Your task to perform on an android device: What's on the menu at Papa Murphy's? Image 0: 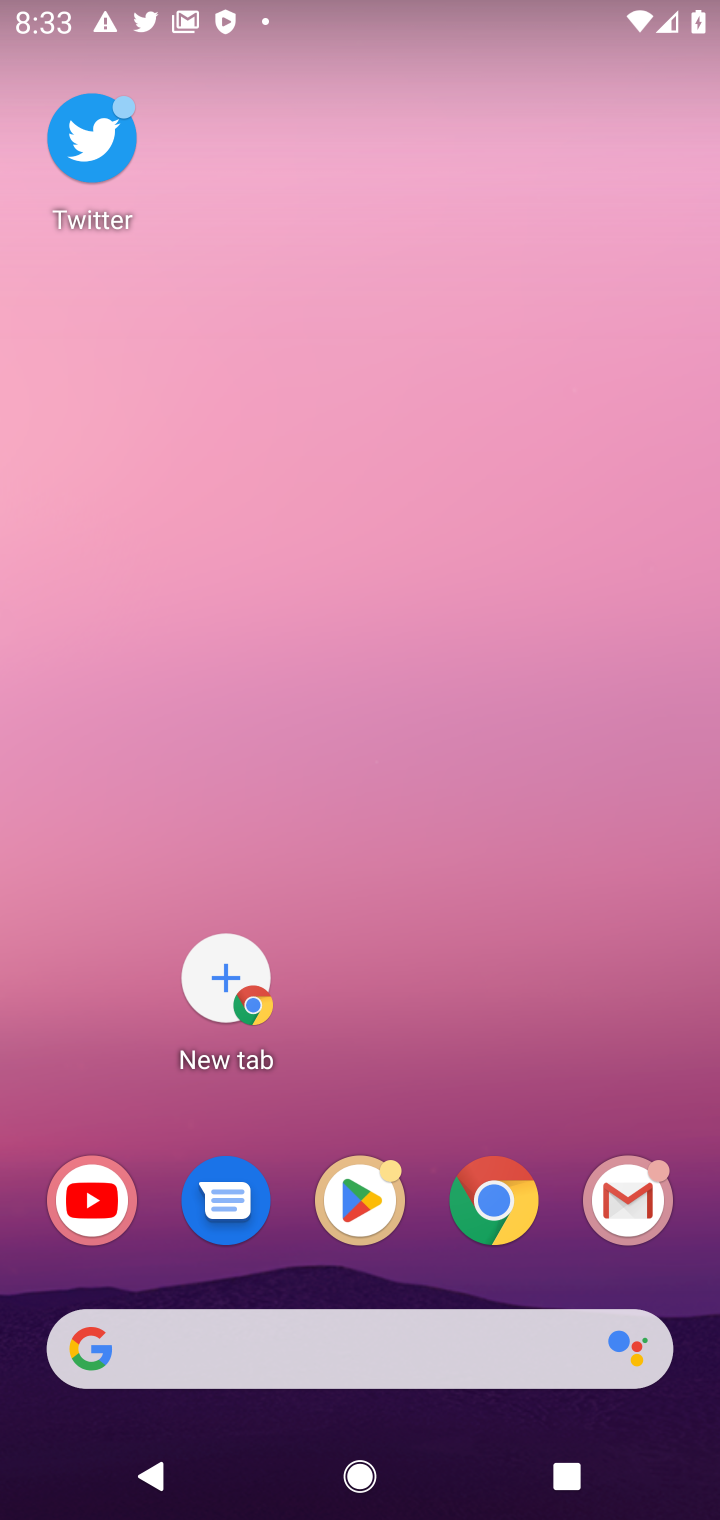
Step 0: click (502, 1204)
Your task to perform on an android device: What's on the menu at Papa Murphy's? Image 1: 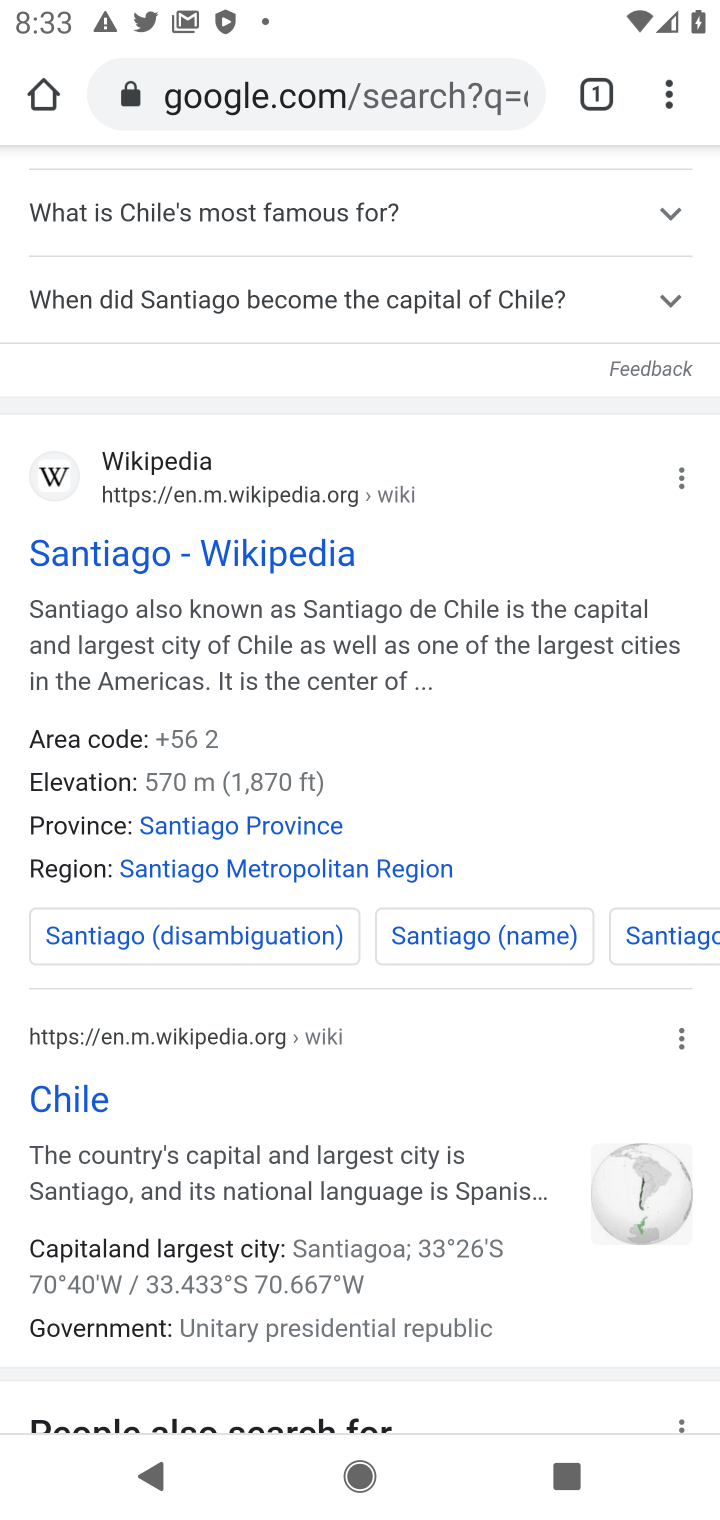
Step 1: click (456, 91)
Your task to perform on an android device: What's on the menu at Papa Murphy's? Image 2: 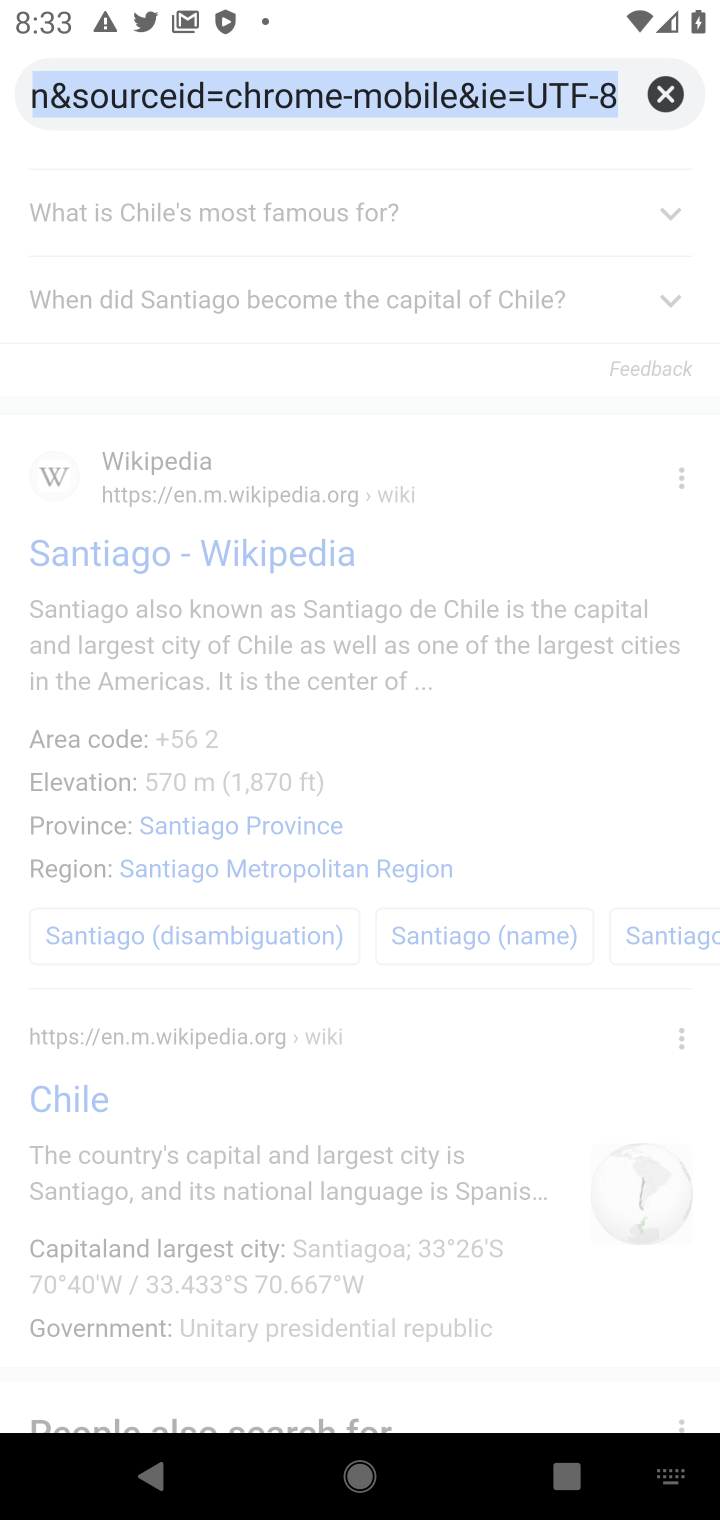
Step 2: click (664, 96)
Your task to perform on an android device: What's on the menu at Papa Murphy's? Image 3: 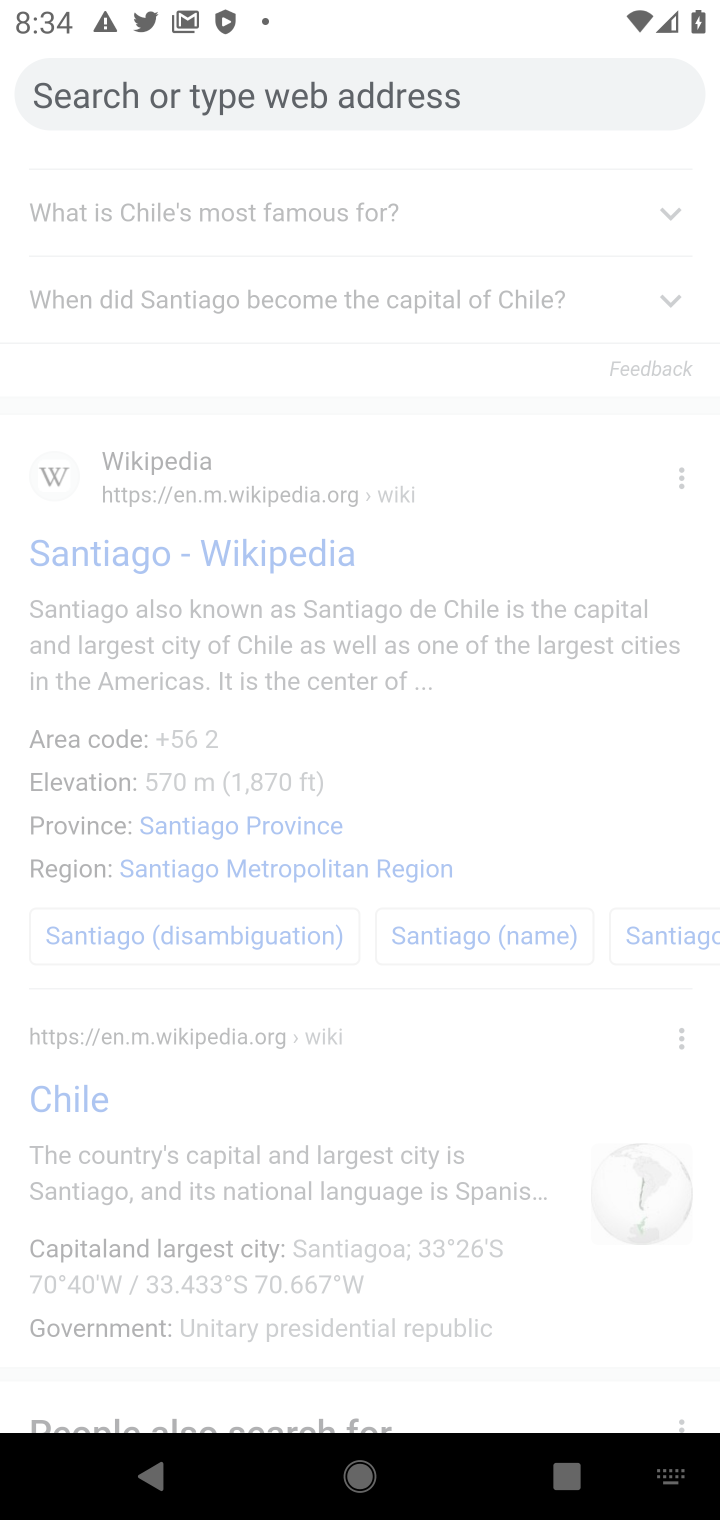
Step 3: type "papa murphy"s"
Your task to perform on an android device: What's on the menu at Papa Murphy's? Image 4: 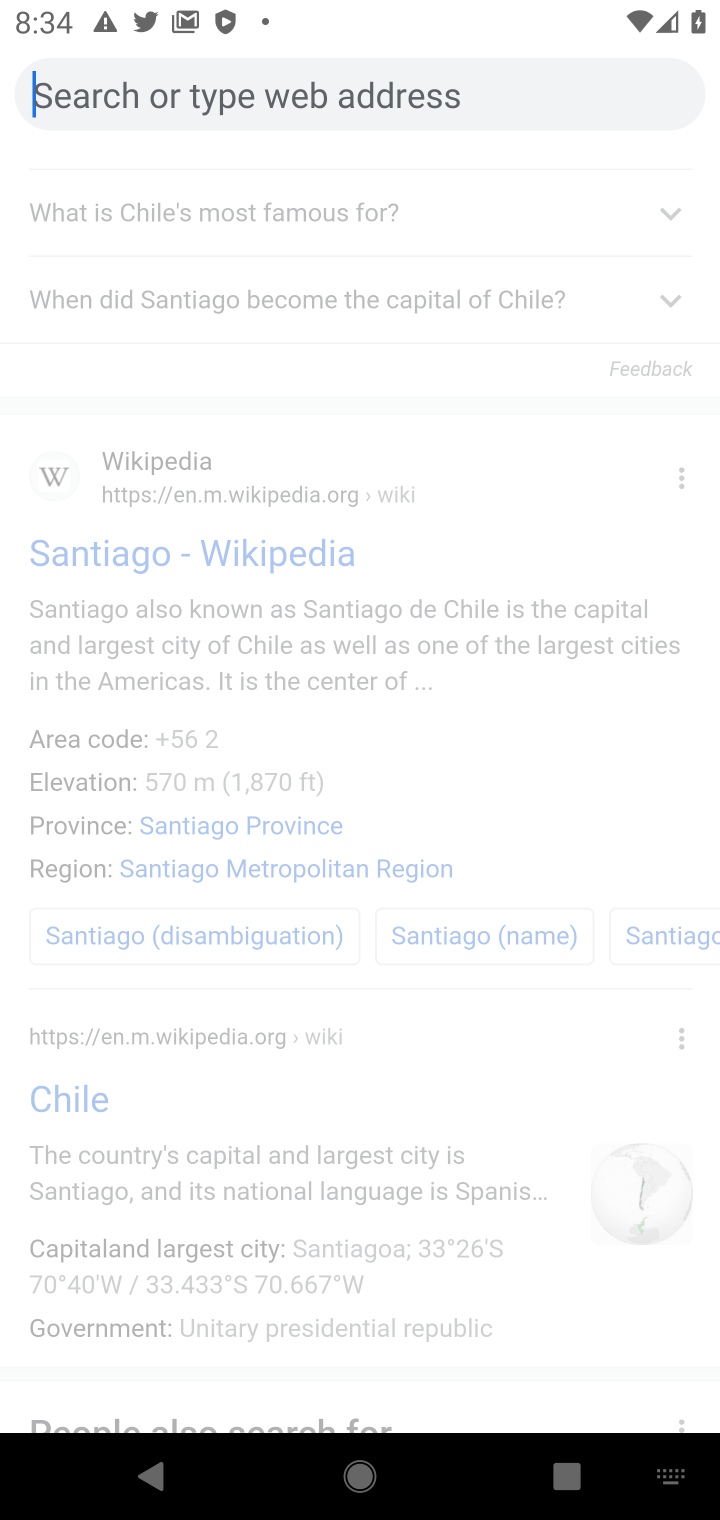
Step 4: type "papa murphy's"
Your task to perform on an android device: What's on the menu at Papa Murphy's? Image 5: 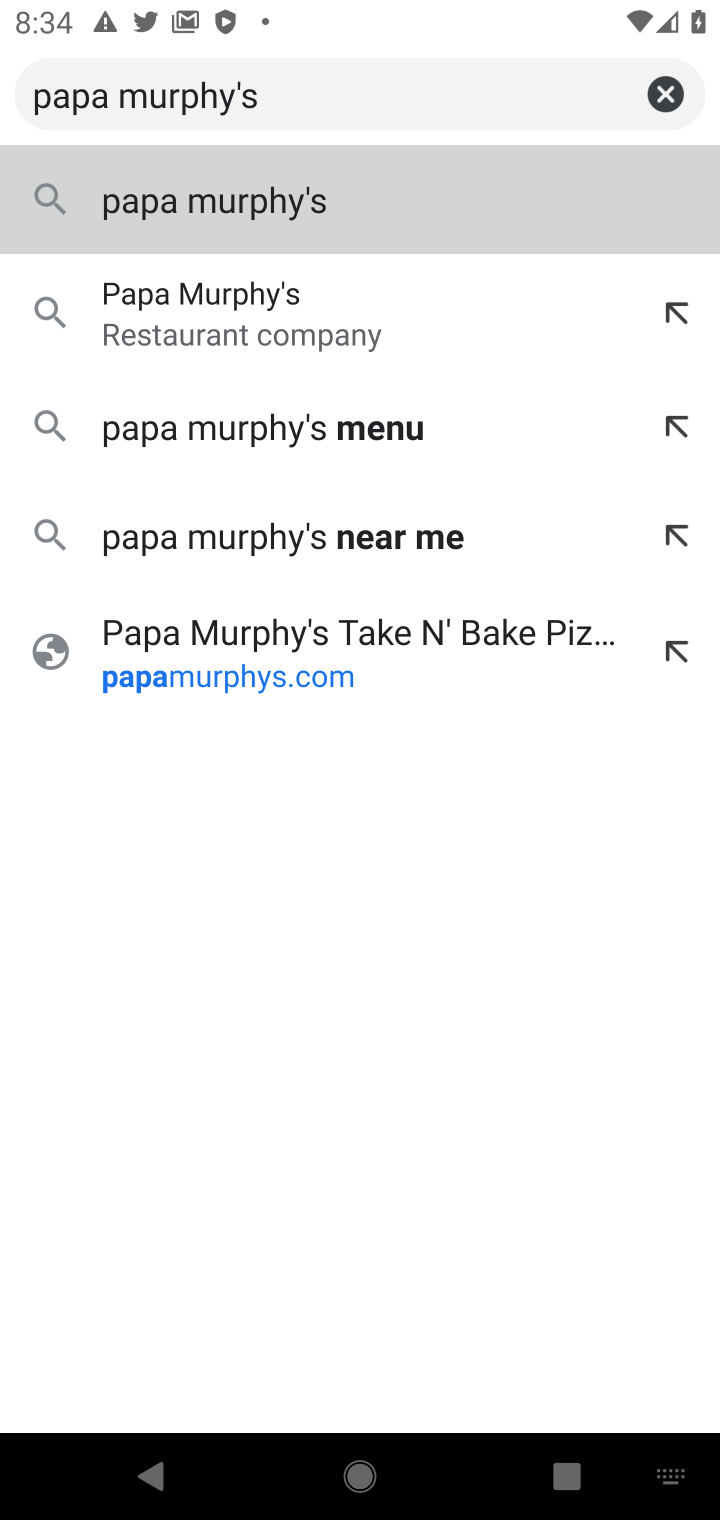
Step 5: type ""
Your task to perform on an android device: What's on the menu at Papa Murphy's? Image 6: 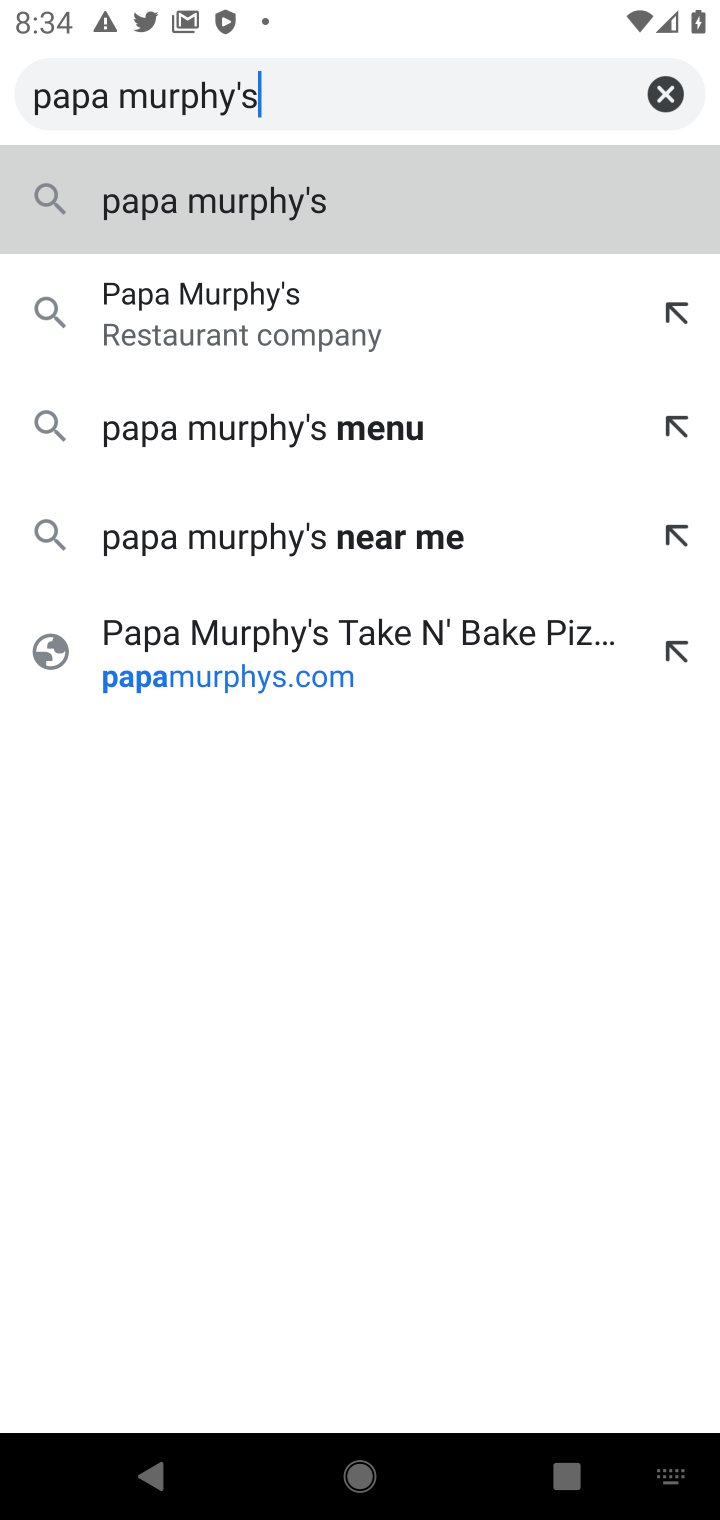
Step 6: click (274, 670)
Your task to perform on an android device: What's on the menu at Papa Murphy's? Image 7: 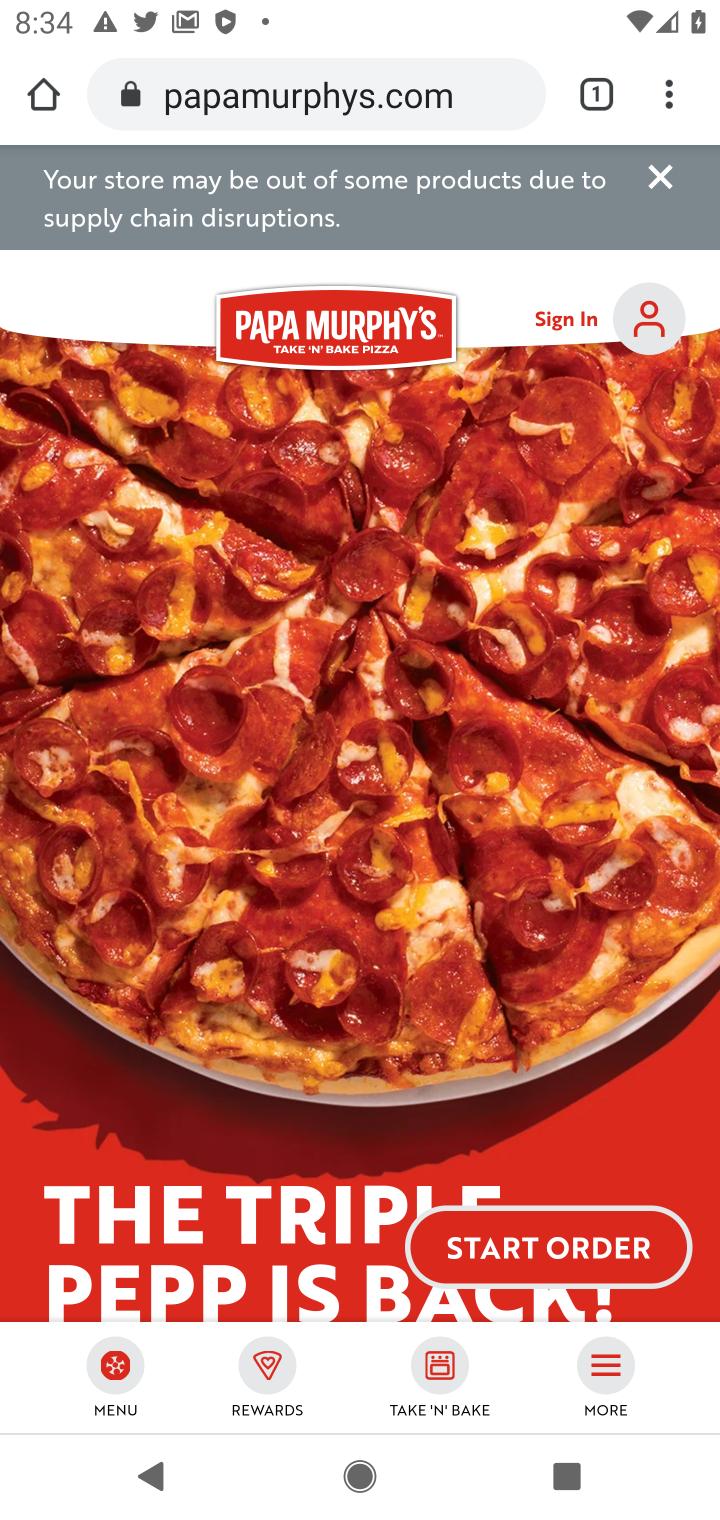
Step 7: drag from (385, 860) to (487, 496)
Your task to perform on an android device: What's on the menu at Papa Murphy's? Image 8: 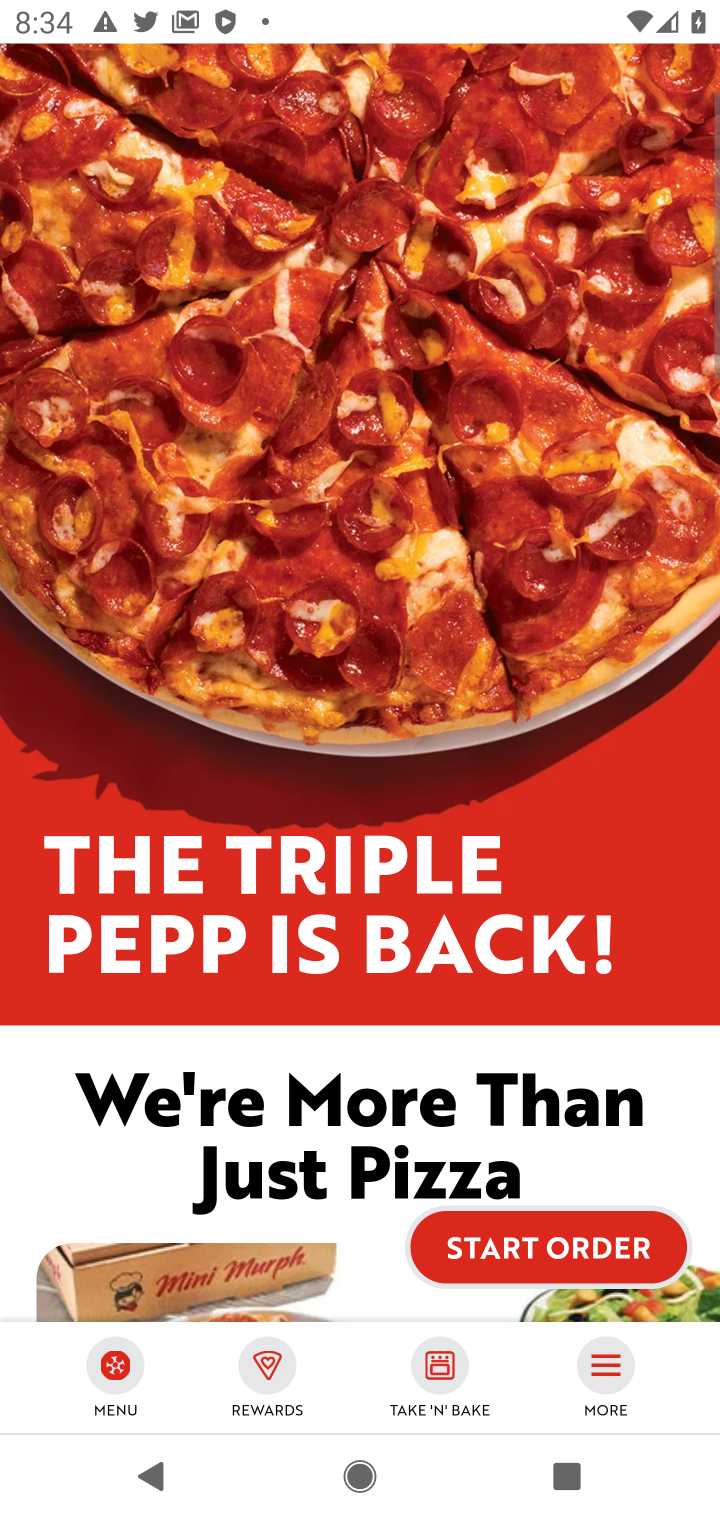
Step 8: drag from (278, 899) to (402, 470)
Your task to perform on an android device: What's on the menu at Papa Murphy's? Image 9: 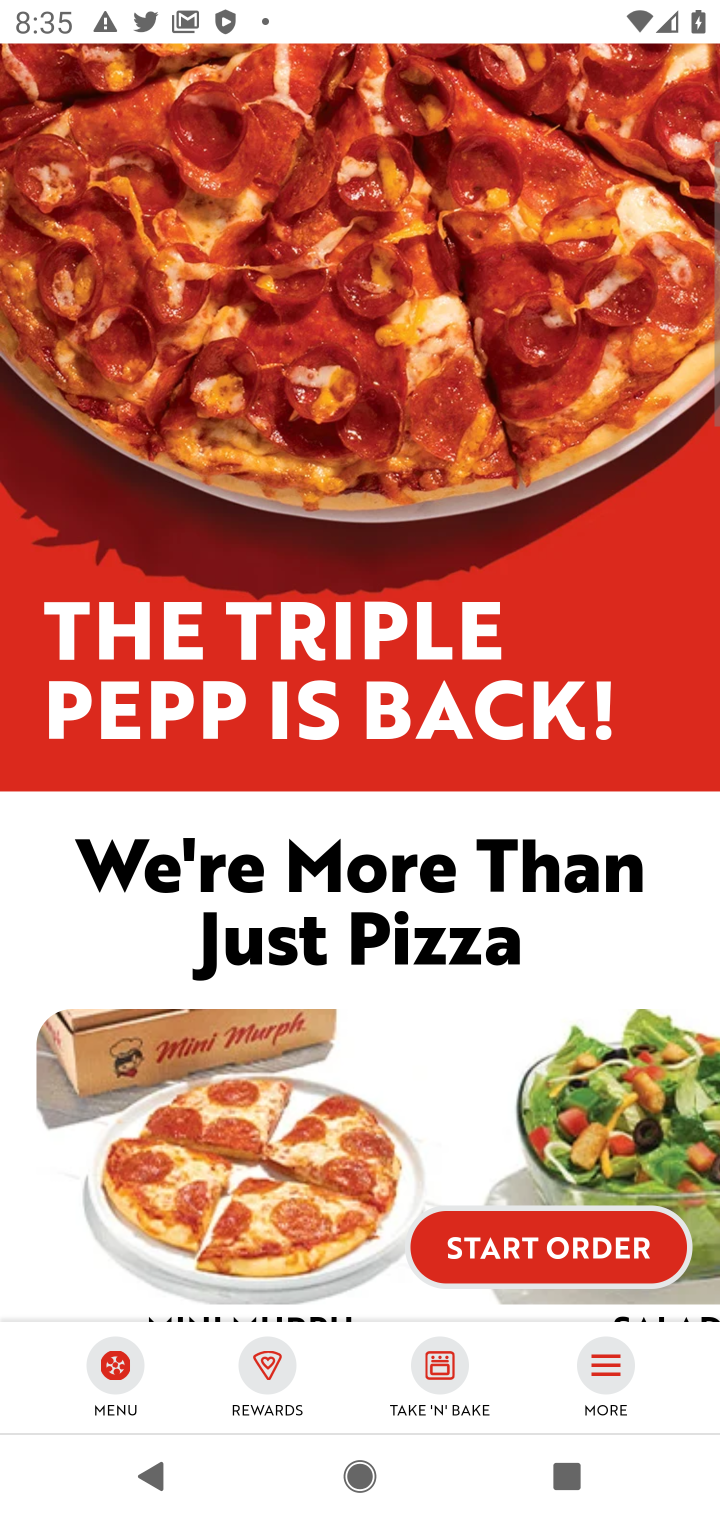
Step 9: drag from (410, 851) to (470, 527)
Your task to perform on an android device: What's on the menu at Papa Murphy's? Image 10: 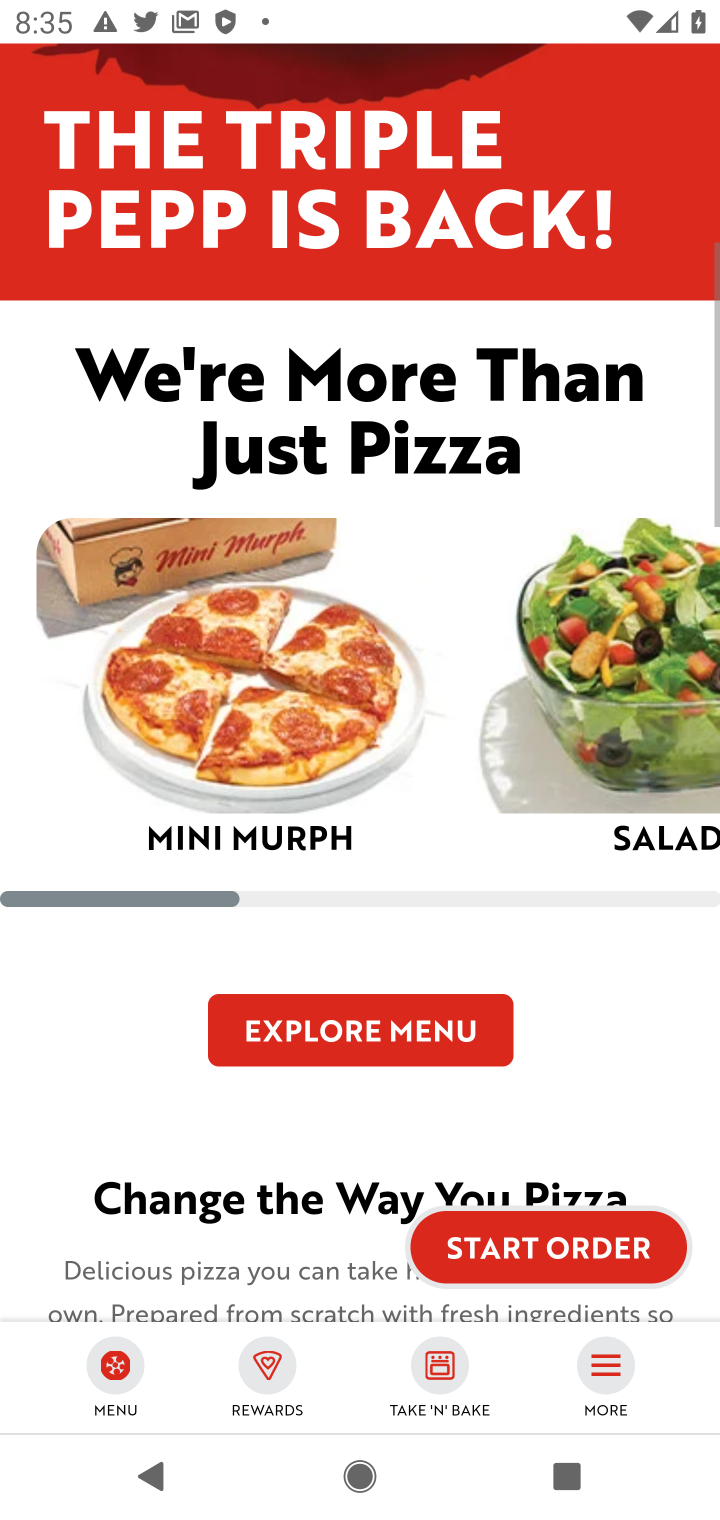
Step 10: drag from (251, 1174) to (431, 526)
Your task to perform on an android device: What's on the menu at Papa Murphy's? Image 11: 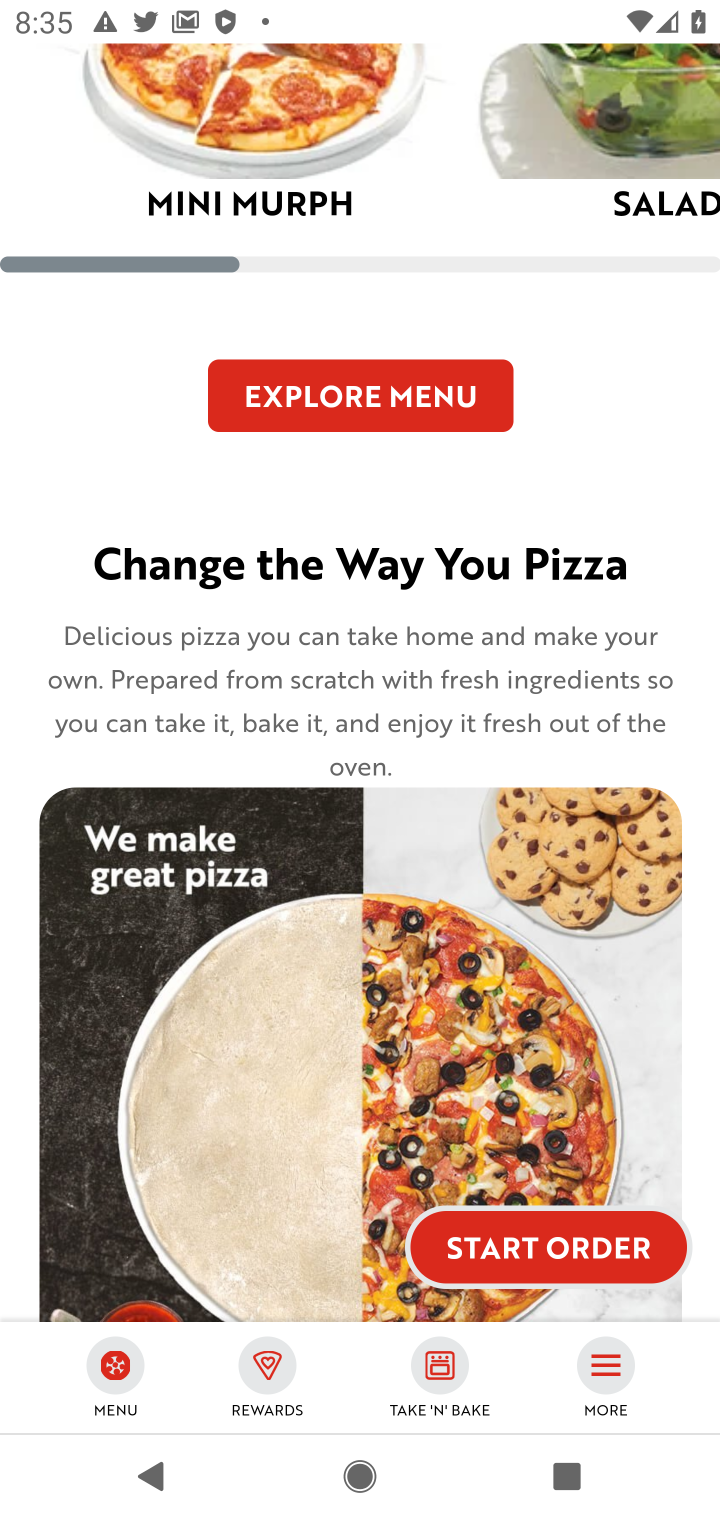
Step 11: drag from (373, 752) to (400, 560)
Your task to perform on an android device: What's on the menu at Papa Murphy's? Image 12: 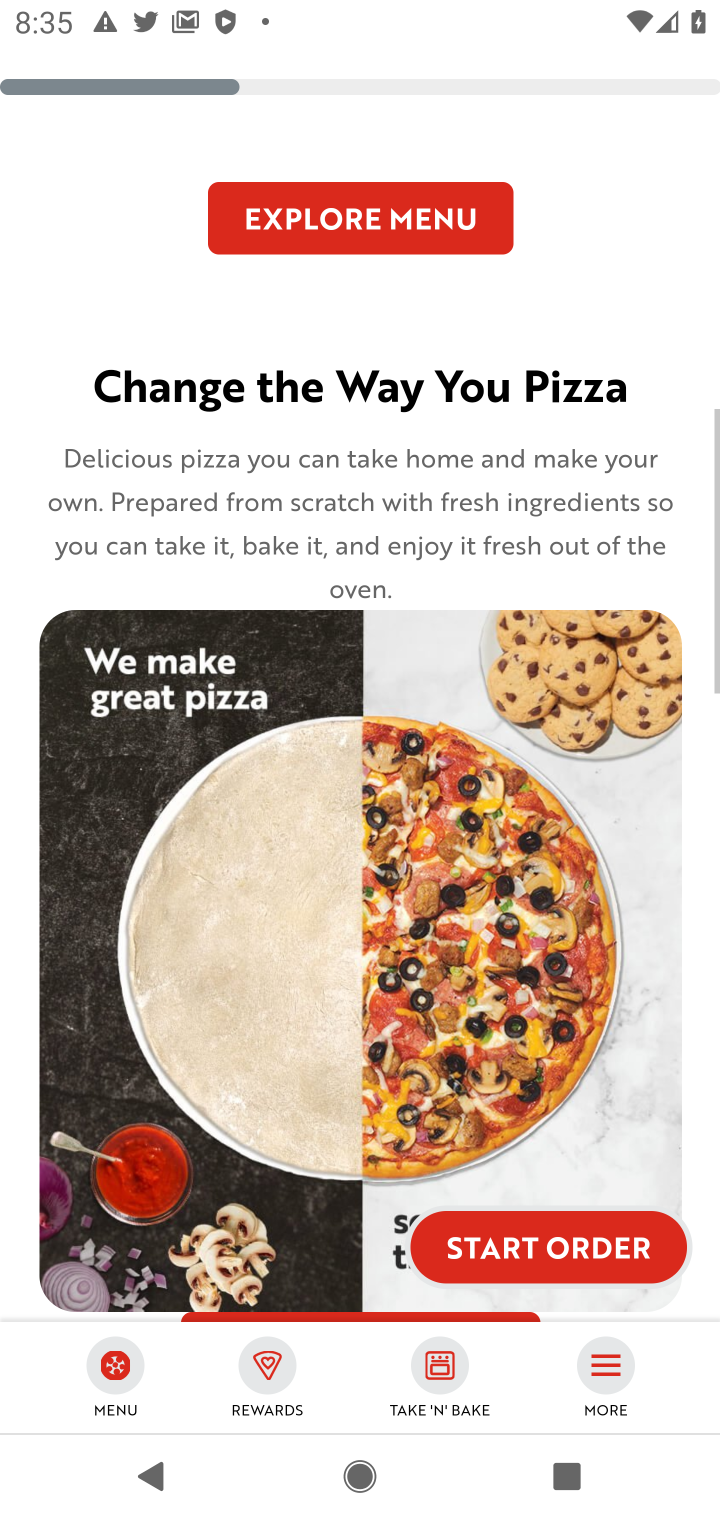
Step 12: click (359, 388)
Your task to perform on an android device: What's on the menu at Papa Murphy's? Image 13: 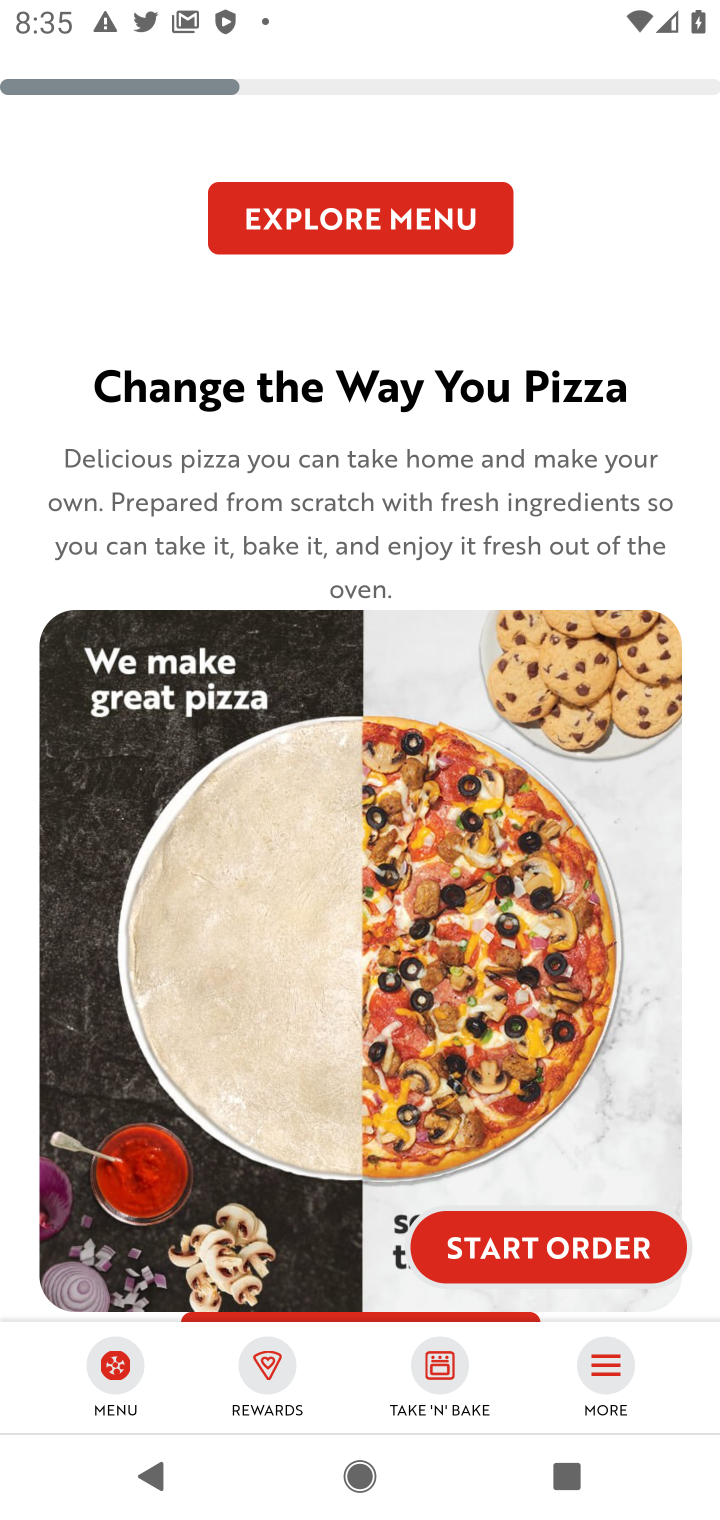
Step 13: click (343, 222)
Your task to perform on an android device: What's on the menu at Papa Murphy's? Image 14: 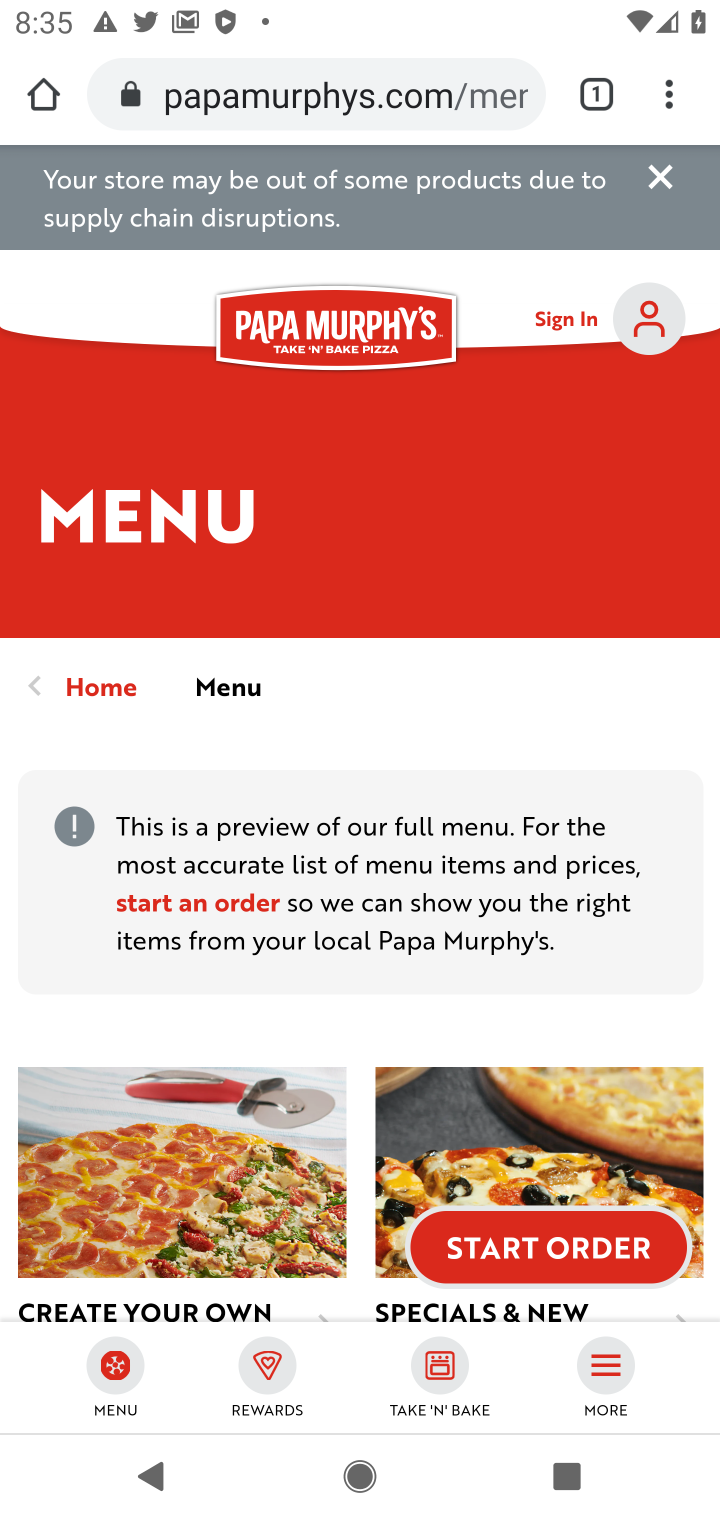
Step 14: task complete